Your task to perform on an android device: turn off picture-in-picture Image 0: 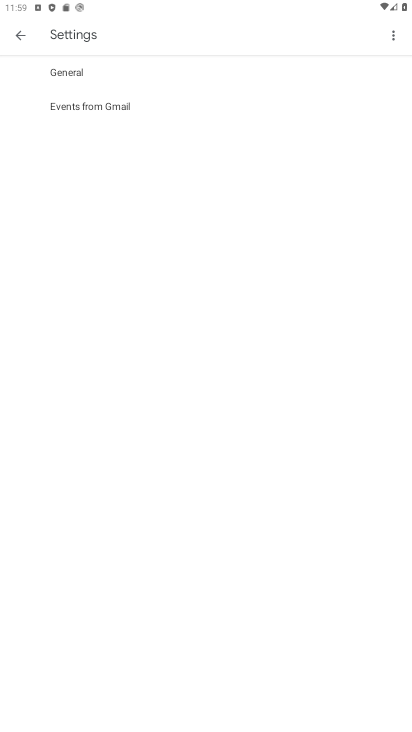
Step 0: press home button
Your task to perform on an android device: turn off picture-in-picture Image 1: 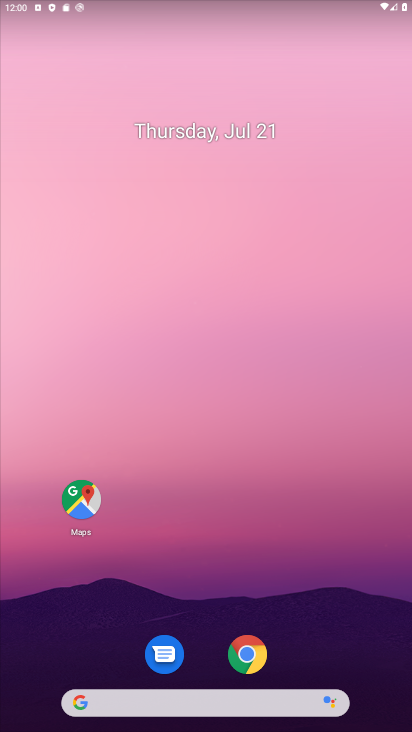
Step 1: click (251, 641)
Your task to perform on an android device: turn off picture-in-picture Image 2: 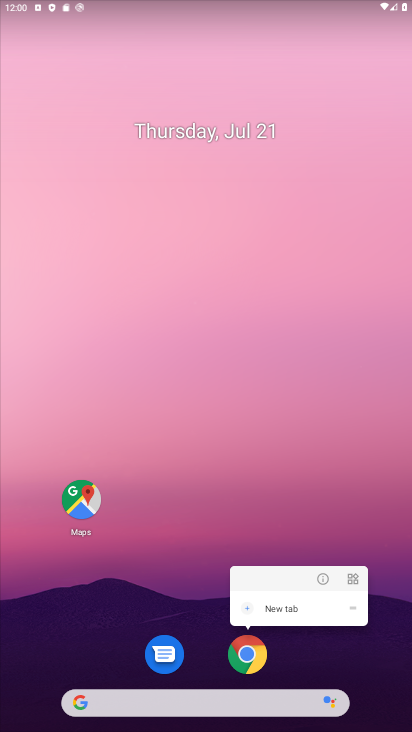
Step 2: click (318, 581)
Your task to perform on an android device: turn off picture-in-picture Image 3: 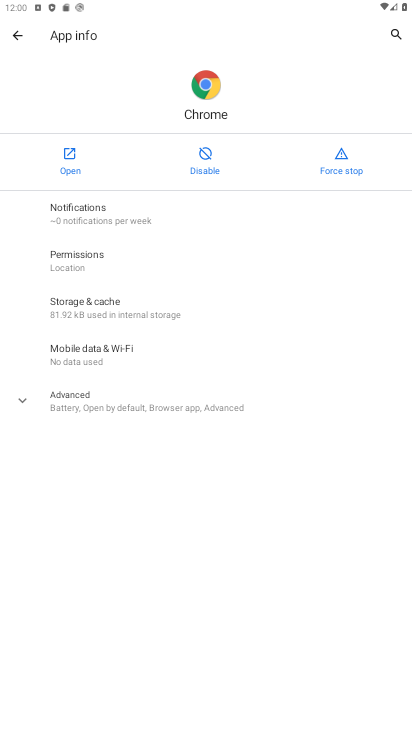
Step 3: click (127, 421)
Your task to perform on an android device: turn off picture-in-picture Image 4: 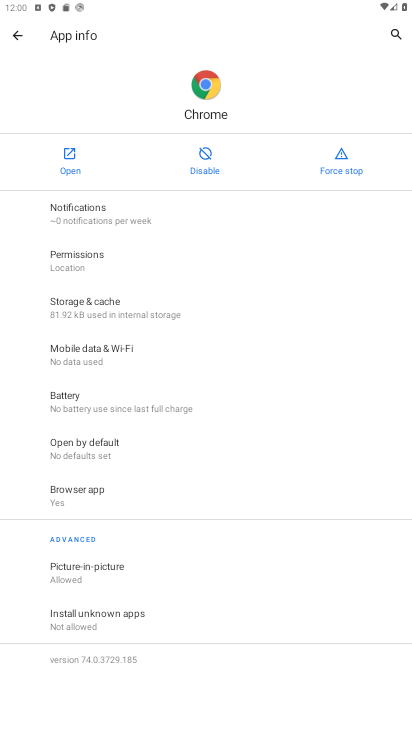
Step 4: click (112, 582)
Your task to perform on an android device: turn off picture-in-picture Image 5: 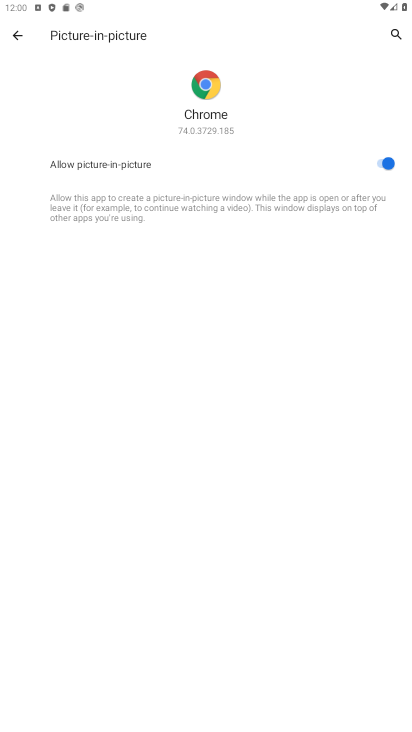
Step 5: click (385, 163)
Your task to perform on an android device: turn off picture-in-picture Image 6: 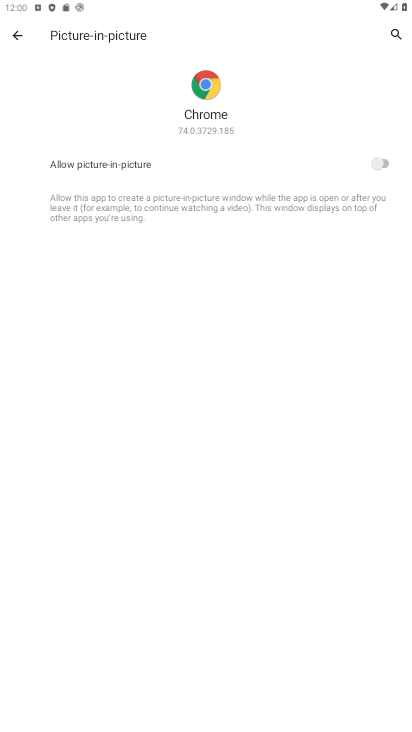
Step 6: task complete